Your task to perform on an android device: Open settings Image 0: 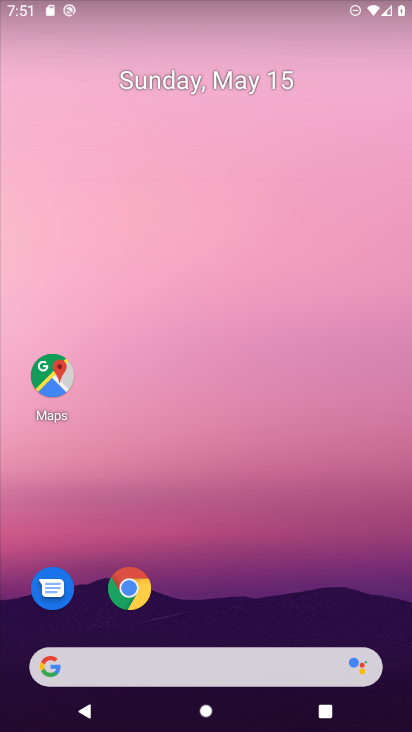
Step 0: press home button
Your task to perform on an android device: Open settings Image 1: 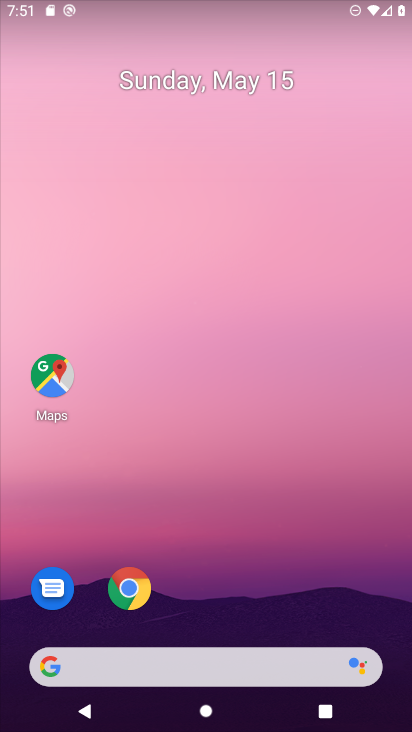
Step 1: drag from (196, 628) to (190, 124)
Your task to perform on an android device: Open settings Image 2: 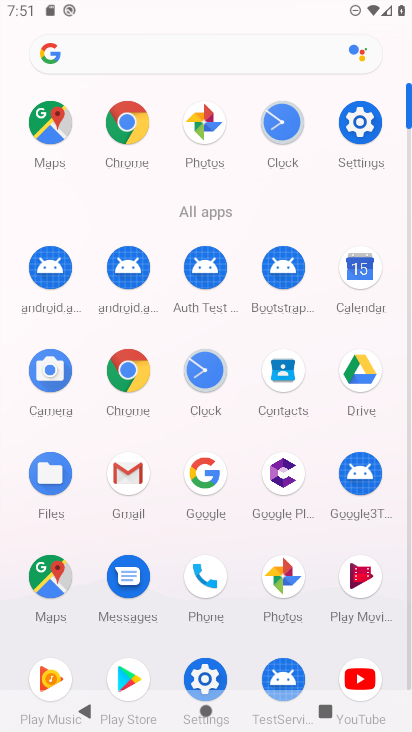
Step 2: click (357, 118)
Your task to perform on an android device: Open settings Image 3: 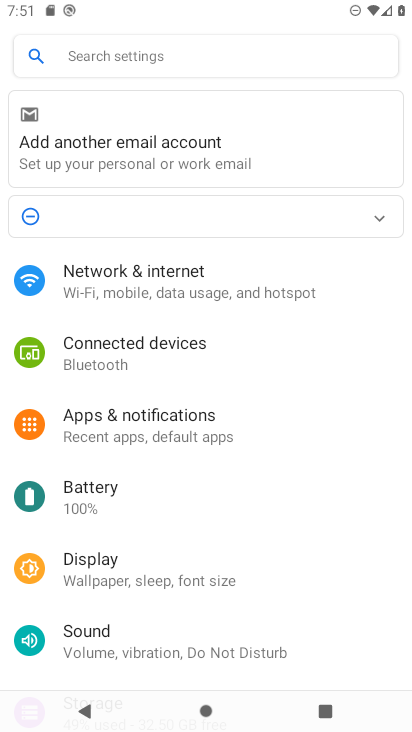
Step 3: task complete